Your task to perform on an android device: What is the news today? Image 0: 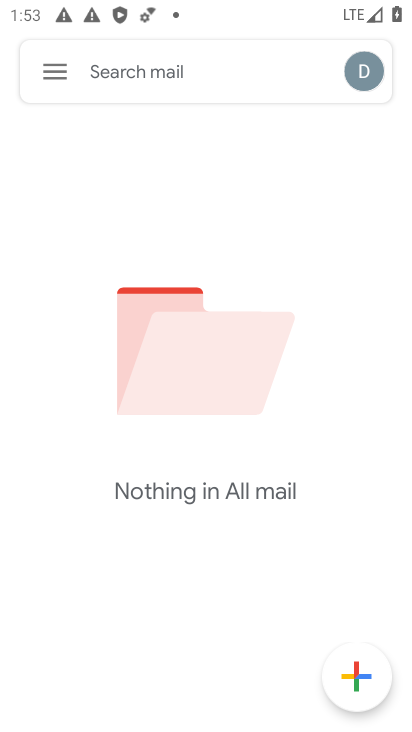
Step 0: press back button
Your task to perform on an android device: What is the news today? Image 1: 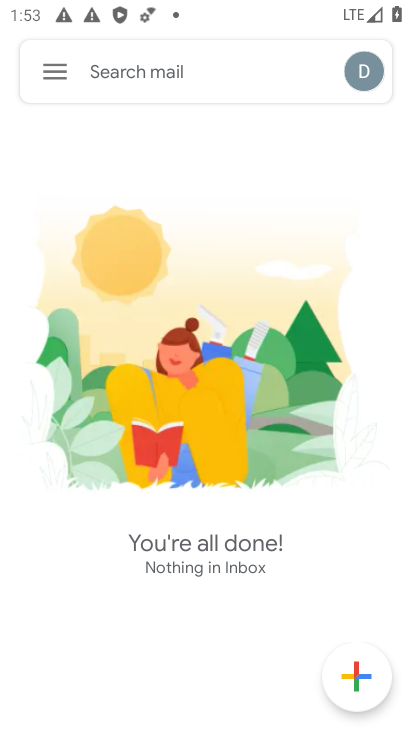
Step 1: press back button
Your task to perform on an android device: What is the news today? Image 2: 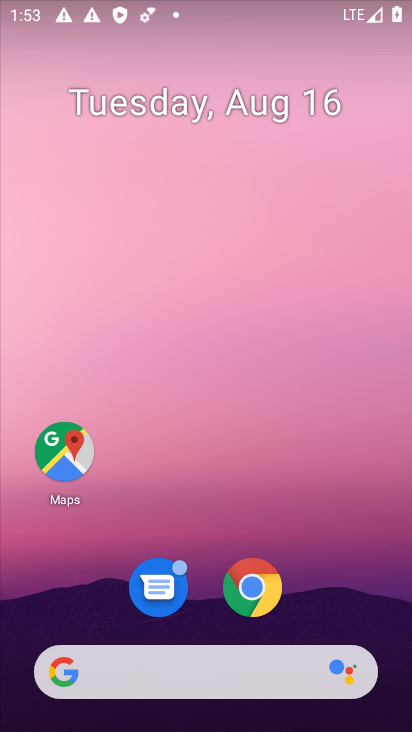
Step 2: click (139, 665)
Your task to perform on an android device: What is the news today? Image 3: 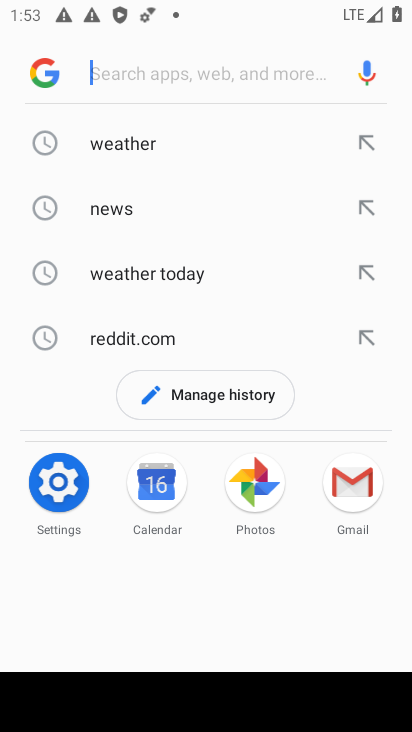
Step 3: click (137, 219)
Your task to perform on an android device: What is the news today? Image 4: 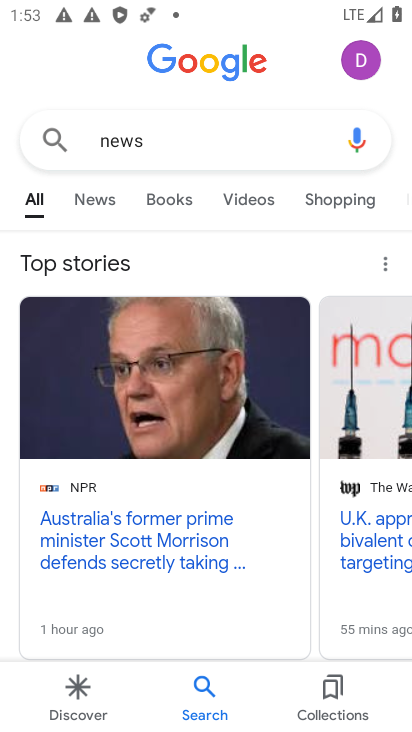
Step 4: task complete